Your task to perform on an android device: open app "Microsoft Excel" Image 0: 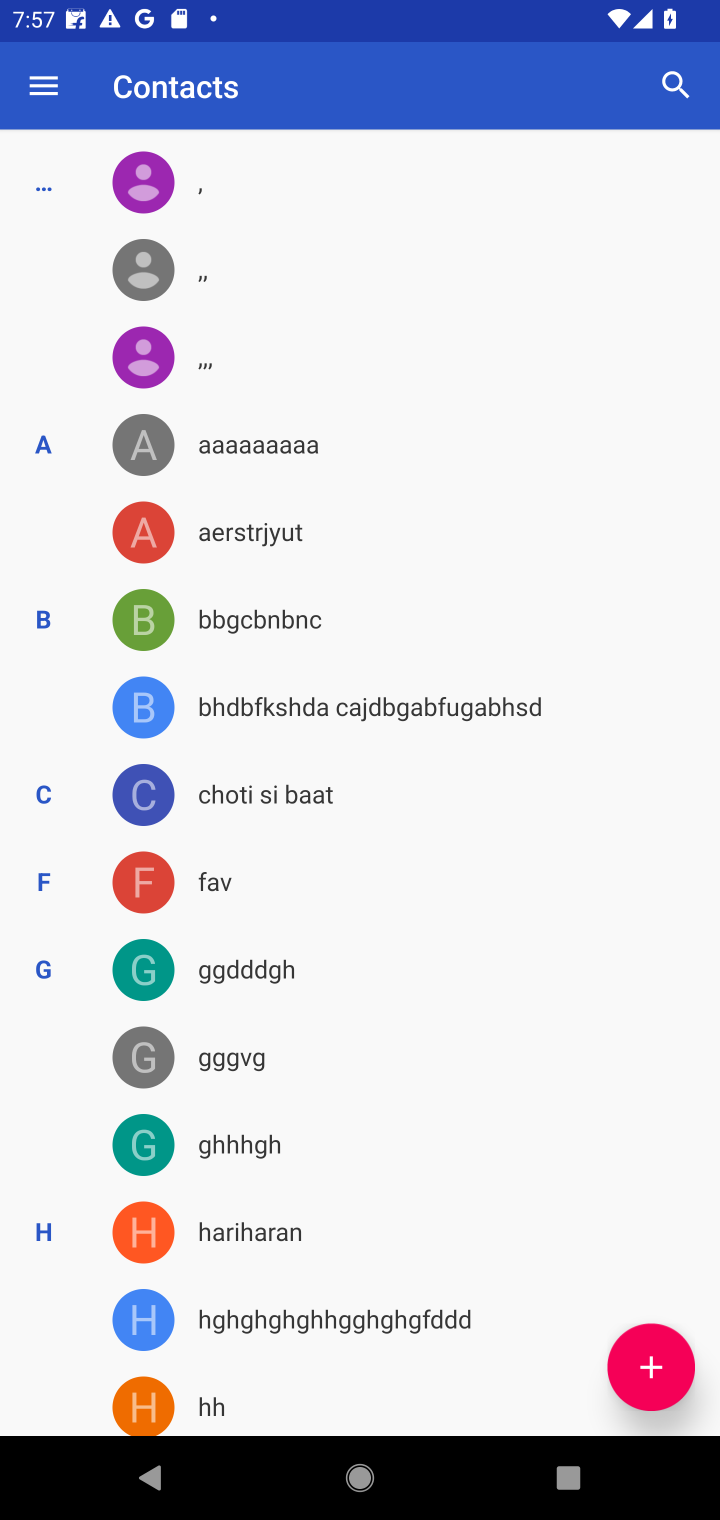
Step 0: press home button
Your task to perform on an android device: open app "Microsoft Excel" Image 1: 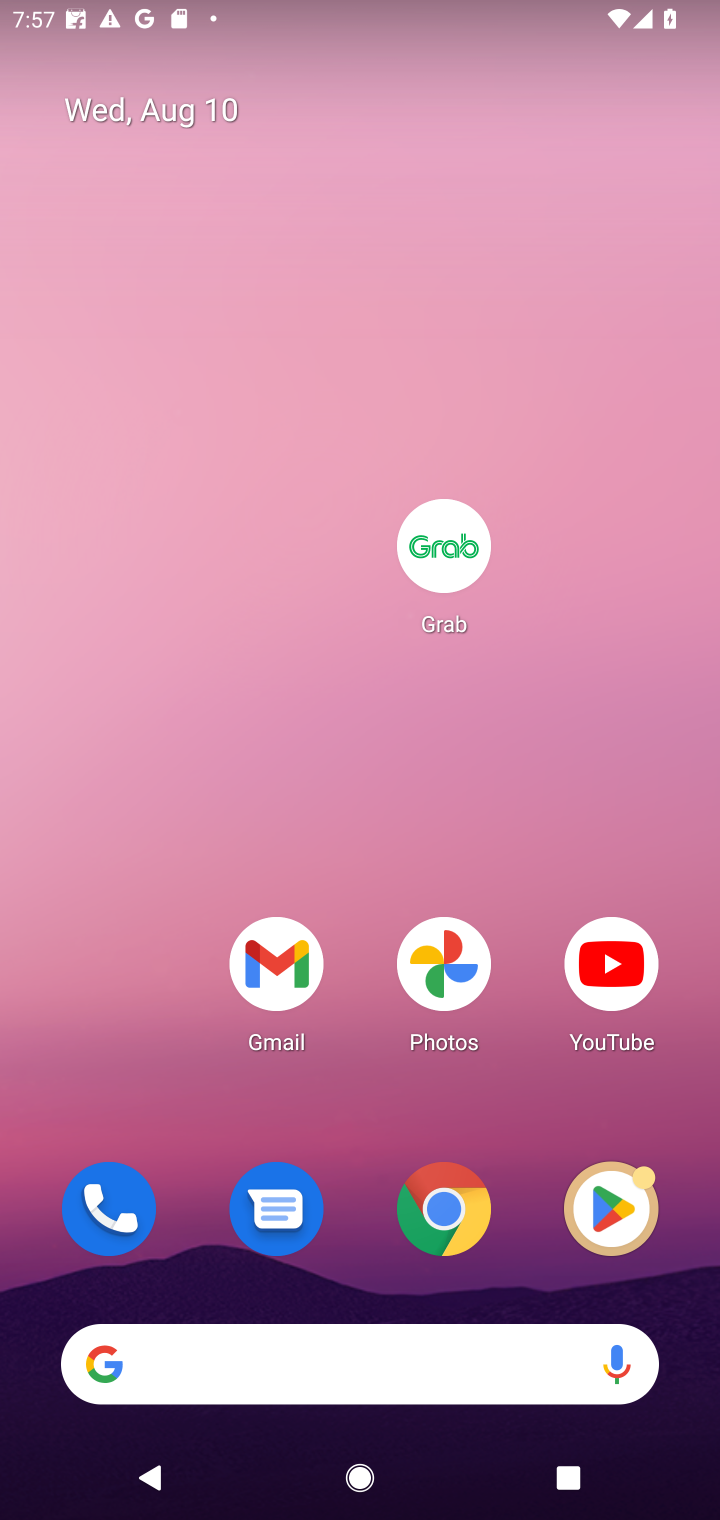
Step 1: click (573, 1221)
Your task to perform on an android device: open app "Microsoft Excel" Image 2: 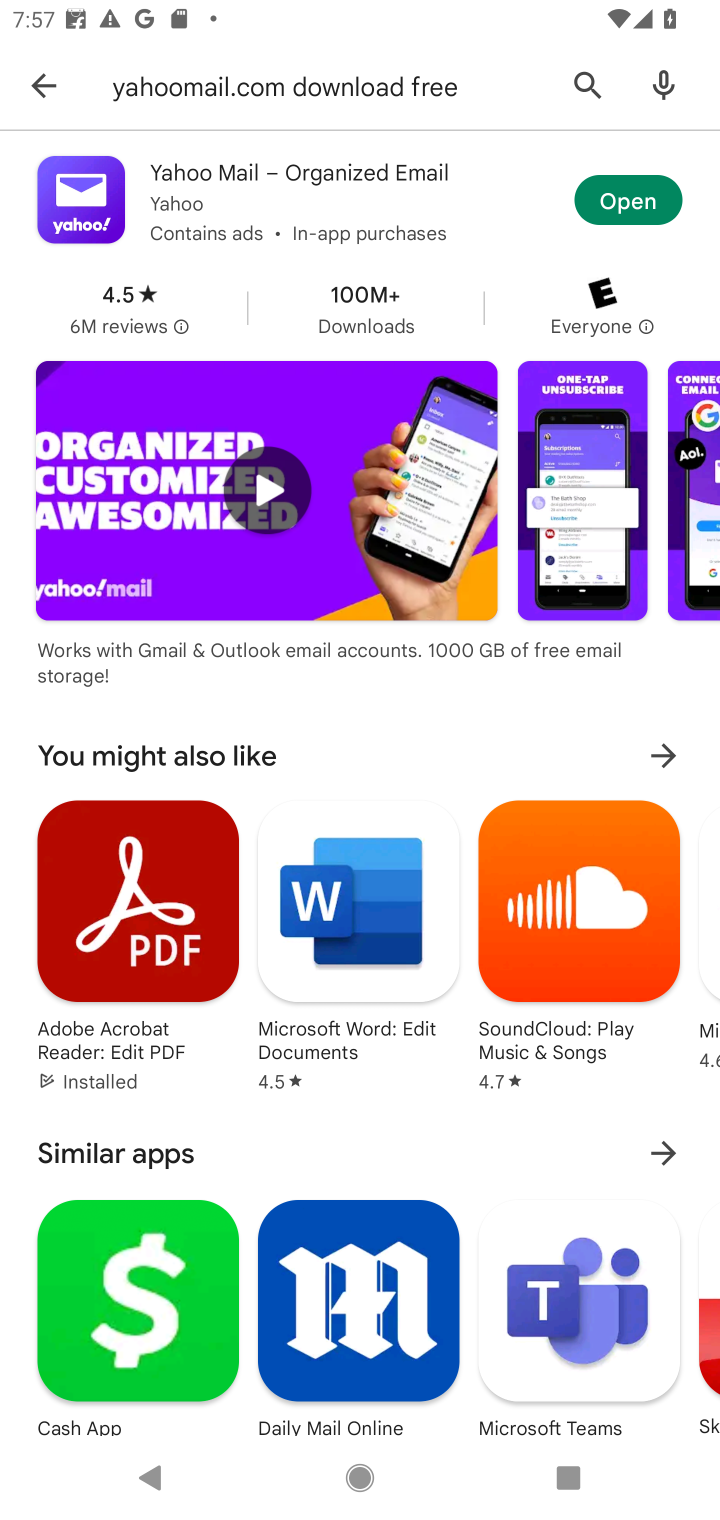
Step 2: click (574, 102)
Your task to perform on an android device: open app "Microsoft Excel" Image 3: 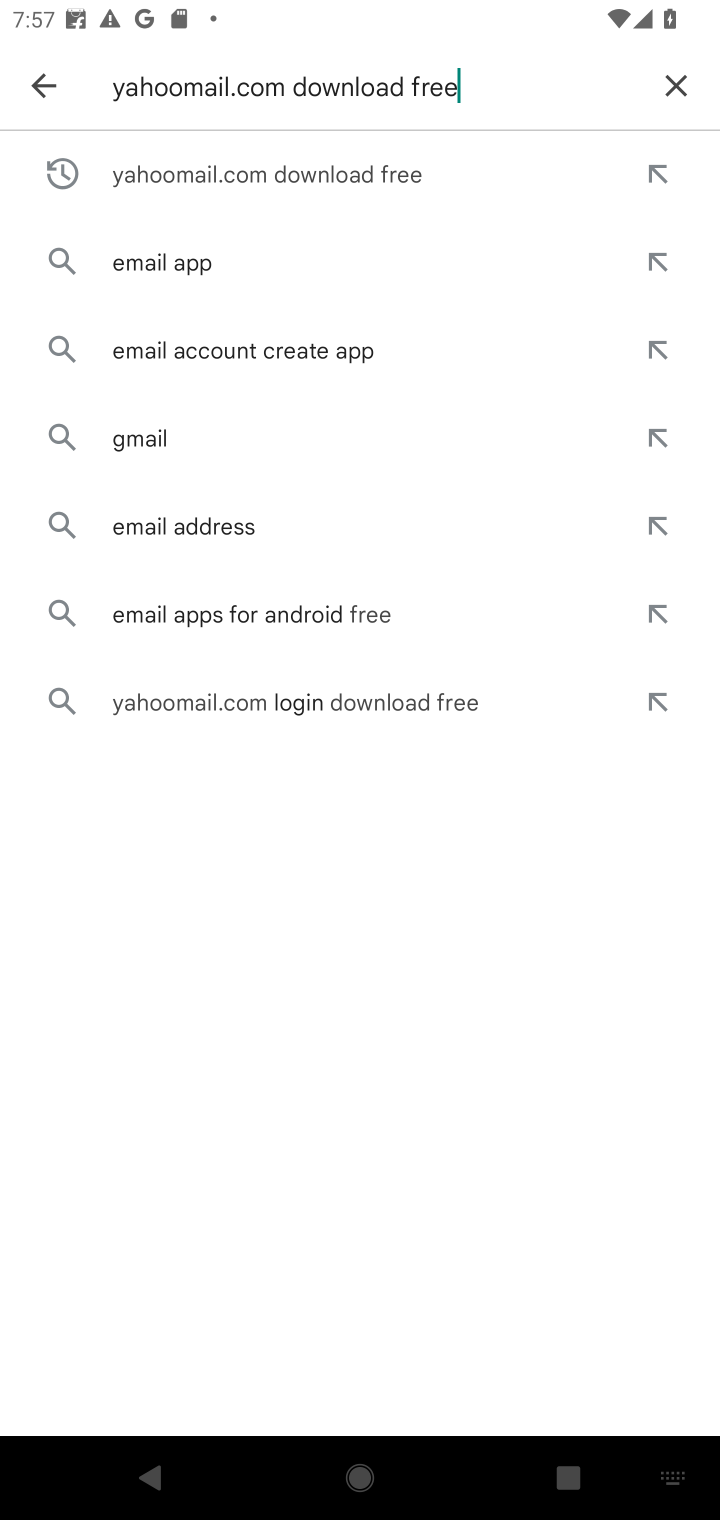
Step 3: click (646, 96)
Your task to perform on an android device: open app "Microsoft Excel" Image 4: 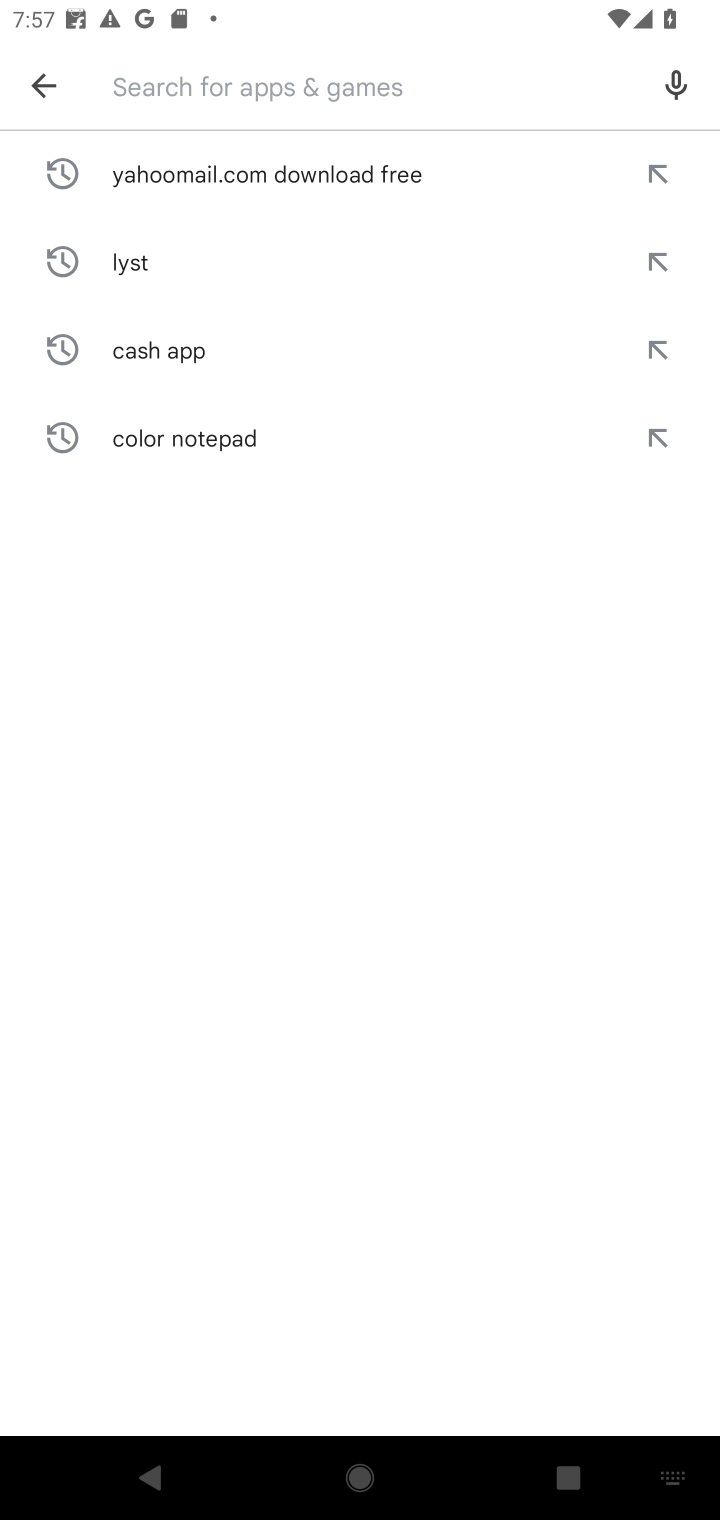
Step 4: type "microsoft"
Your task to perform on an android device: open app "Microsoft Excel" Image 5: 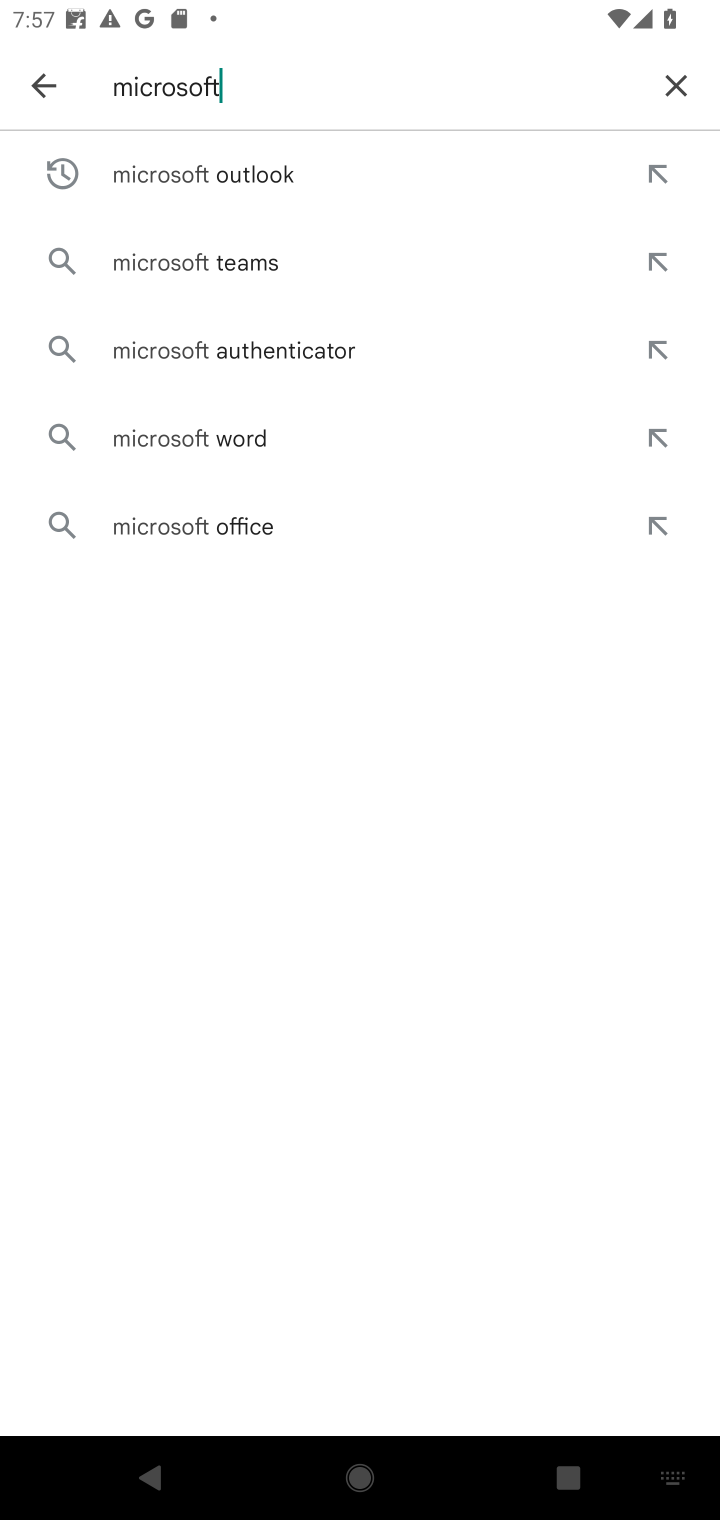
Step 5: click (142, 170)
Your task to perform on an android device: open app "Microsoft Excel" Image 6: 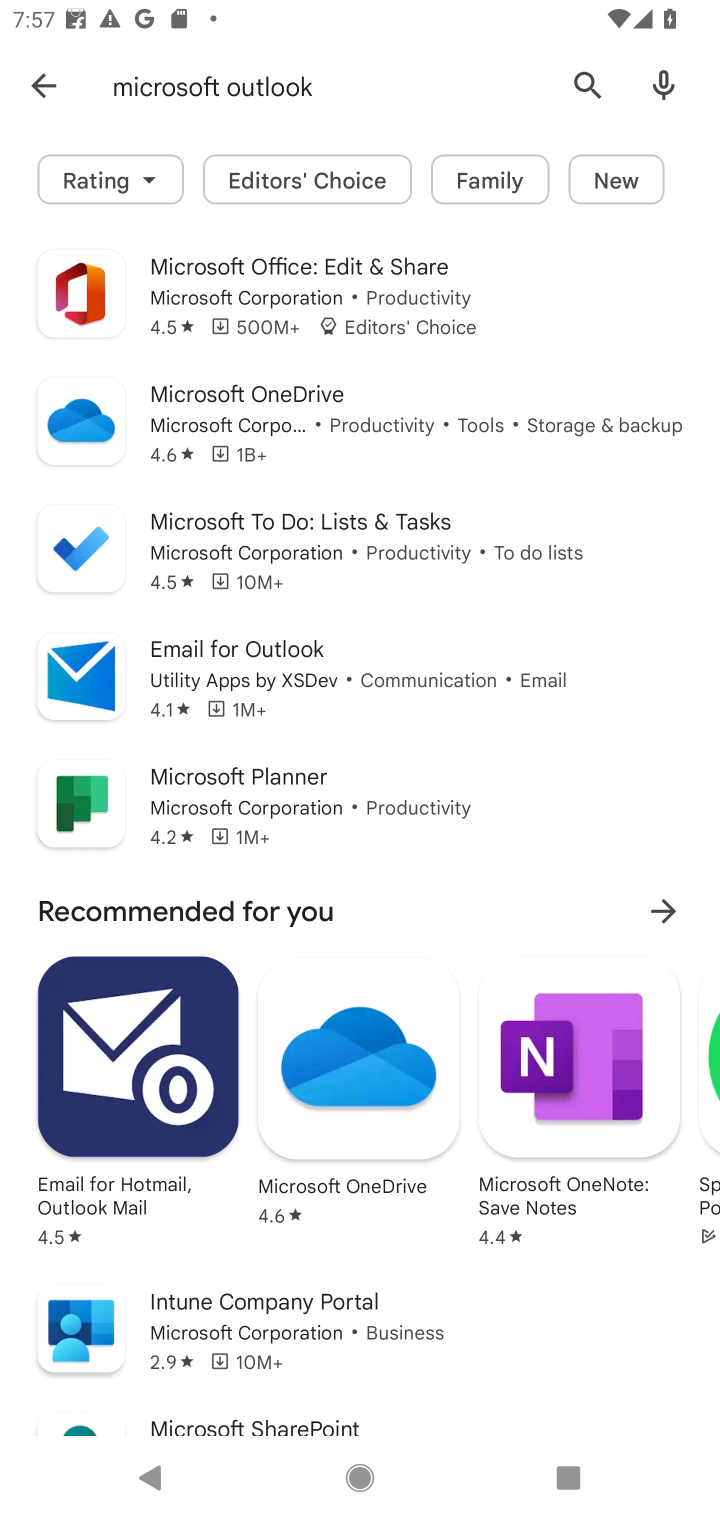
Step 6: click (308, 277)
Your task to perform on an android device: open app "Microsoft Excel" Image 7: 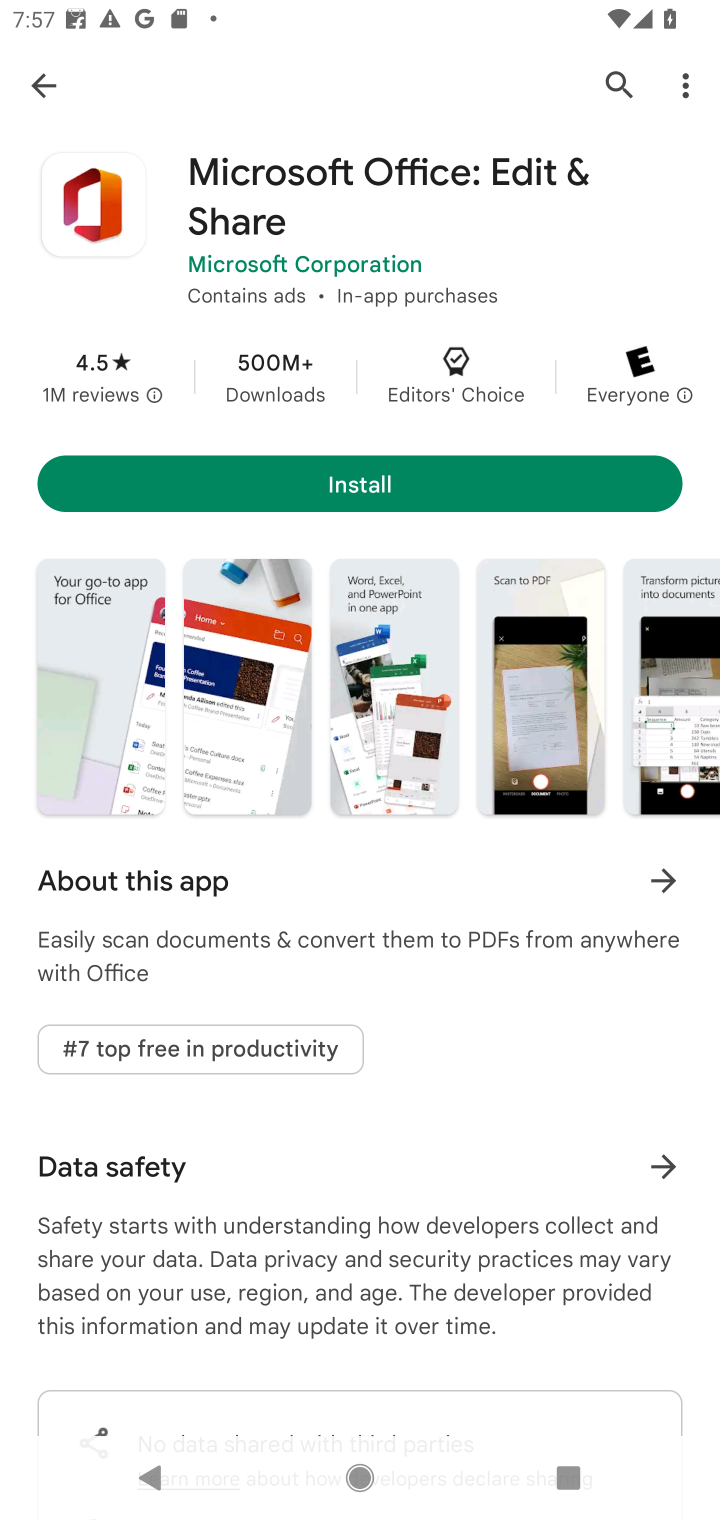
Step 7: click (563, 487)
Your task to perform on an android device: open app "Microsoft Excel" Image 8: 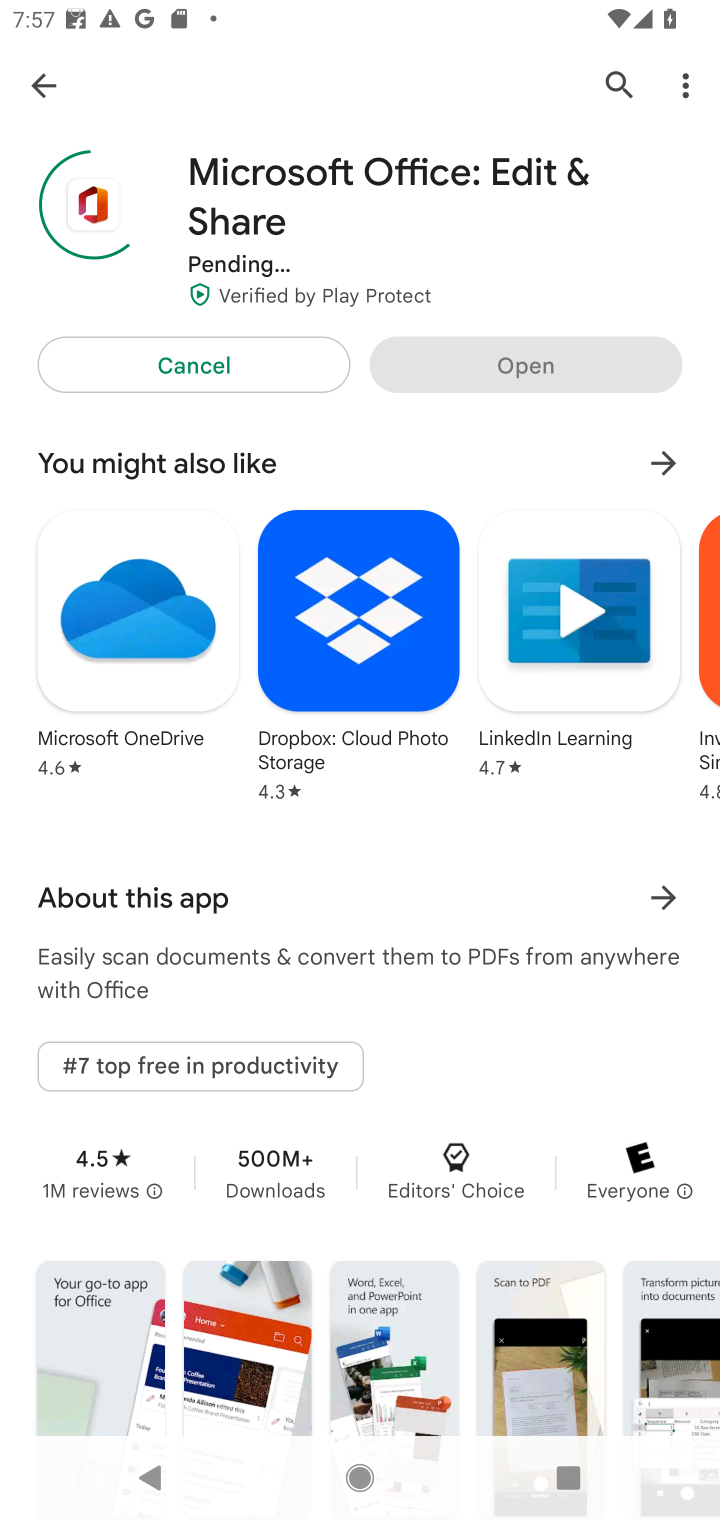
Step 8: task complete